Your task to perform on an android device: open chrome and create a bookmark for the current page Image 0: 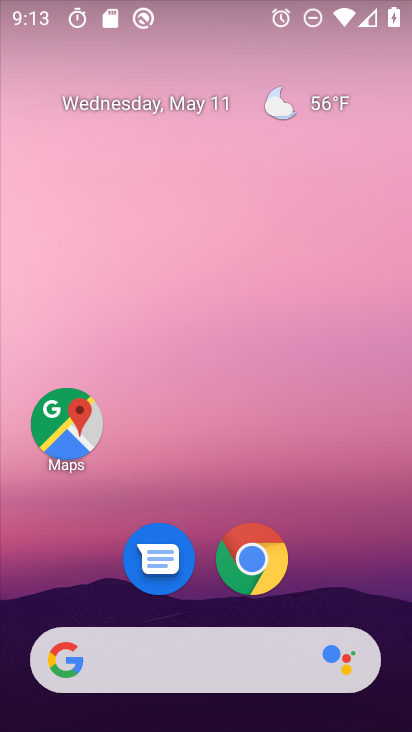
Step 0: click (269, 564)
Your task to perform on an android device: open chrome and create a bookmark for the current page Image 1: 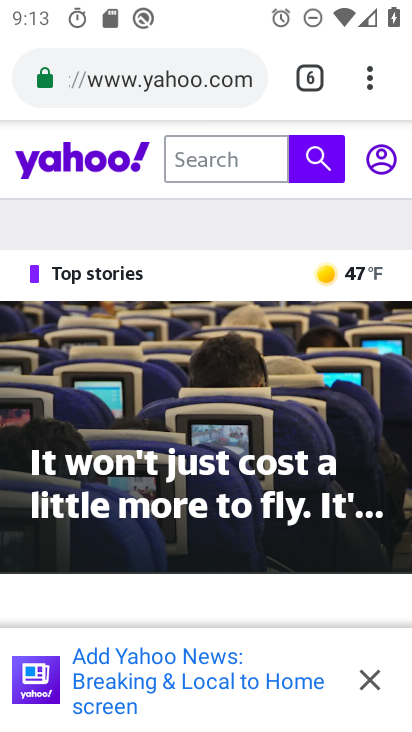
Step 1: click (375, 70)
Your task to perform on an android device: open chrome and create a bookmark for the current page Image 2: 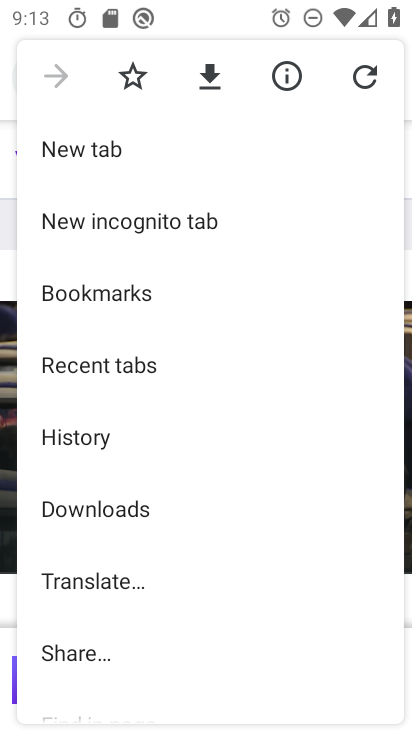
Step 2: click (132, 73)
Your task to perform on an android device: open chrome and create a bookmark for the current page Image 3: 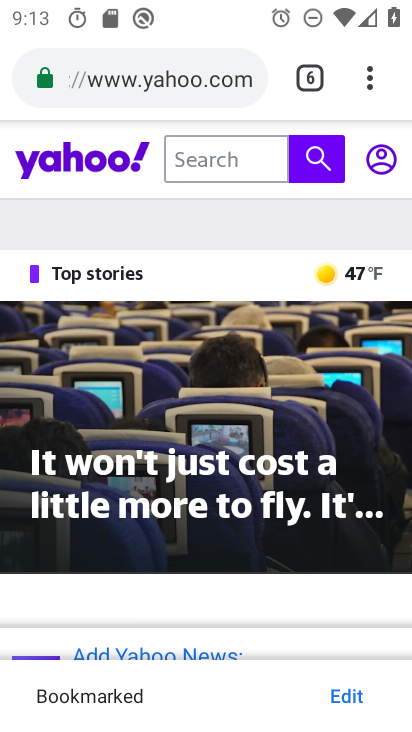
Step 3: task complete